Your task to perform on an android device: find photos in the google photos app Image 0: 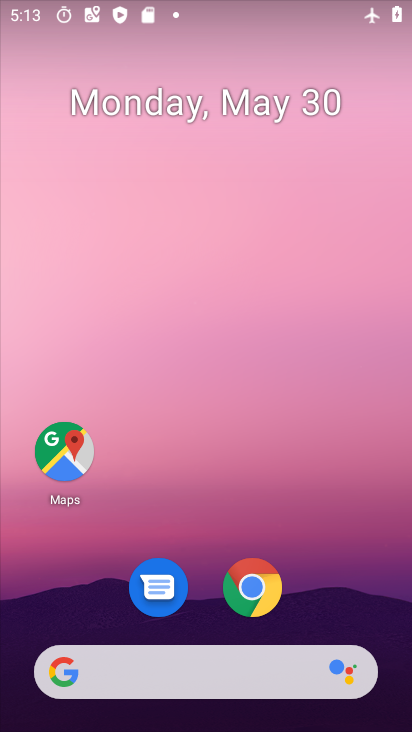
Step 0: drag from (326, 549) to (233, 108)
Your task to perform on an android device: find photos in the google photos app Image 1: 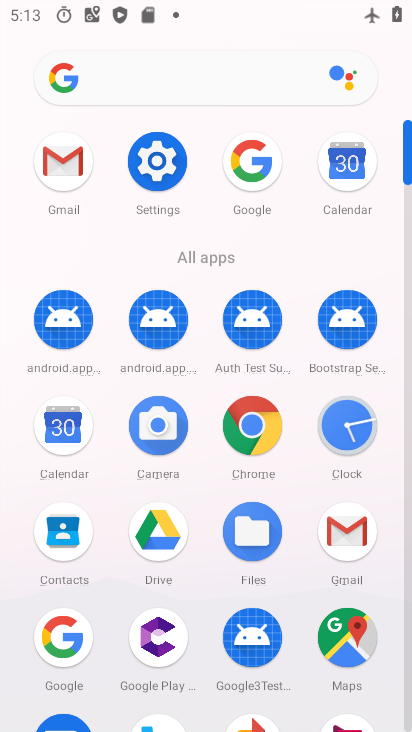
Step 1: drag from (286, 484) to (237, 131)
Your task to perform on an android device: find photos in the google photos app Image 2: 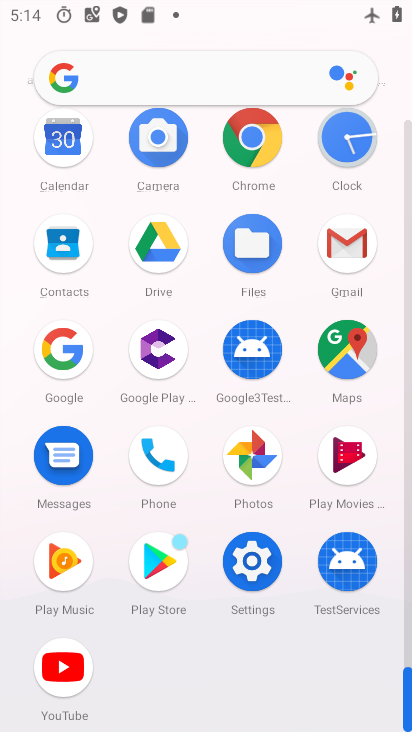
Step 2: click (253, 451)
Your task to perform on an android device: find photos in the google photos app Image 3: 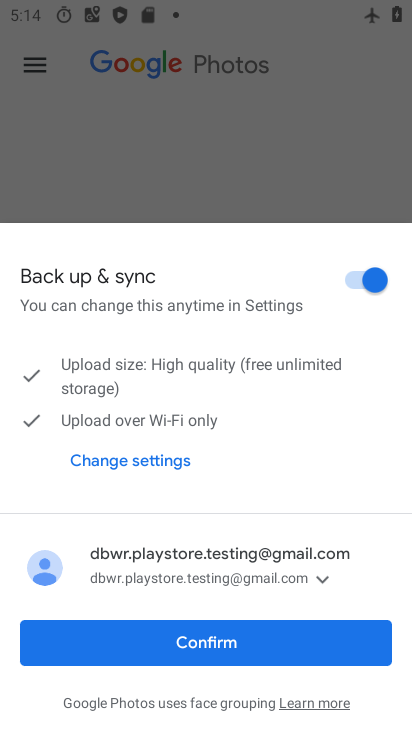
Step 3: click (233, 647)
Your task to perform on an android device: find photos in the google photos app Image 4: 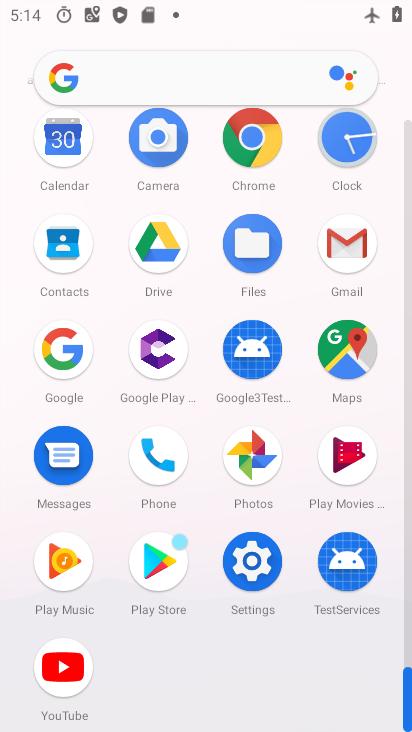
Step 4: click (253, 458)
Your task to perform on an android device: find photos in the google photos app Image 5: 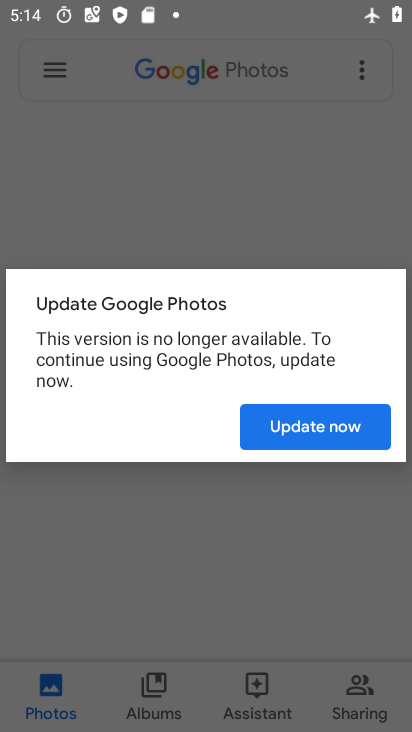
Step 5: click (311, 426)
Your task to perform on an android device: find photos in the google photos app Image 6: 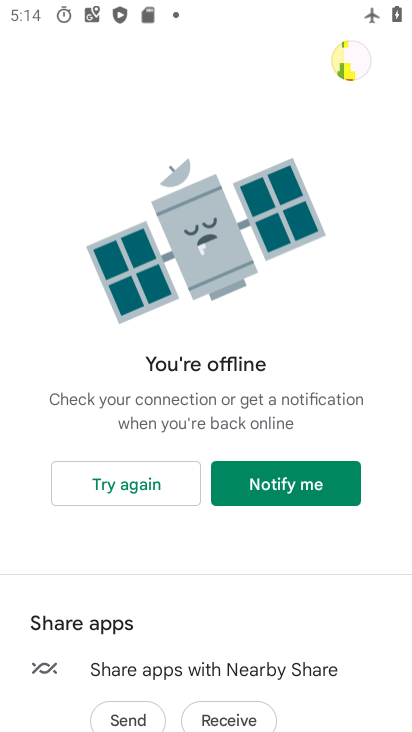
Step 6: task complete